Your task to perform on an android device: open app "Booking.com: Hotels and more" (install if not already installed), go to login, and select forgot password Image 0: 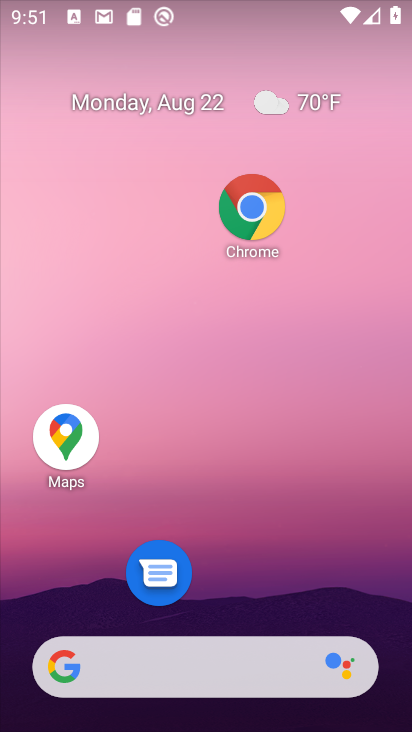
Step 0: drag from (243, 606) to (303, 269)
Your task to perform on an android device: open app "Booking.com: Hotels and more" (install if not already installed), go to login, and select forgot password Image 1: 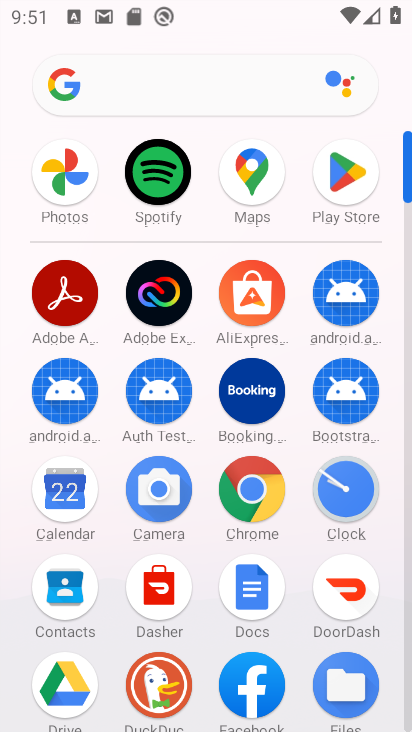
Step 1: click (349, 189)
Your task to perform on an android device: open app "Booking.com: Hotels and more" (install if not already installed), go to login, and select forgot password Image 2: 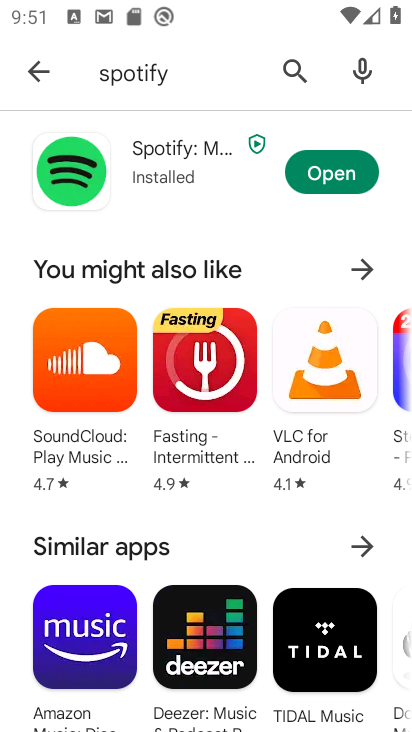
Step 2: click (189, 83)
Your task to perform on an android device: open app "Booking.com: Hotels and more" (install if not already installed), go to login, and select forgot password Image 3: 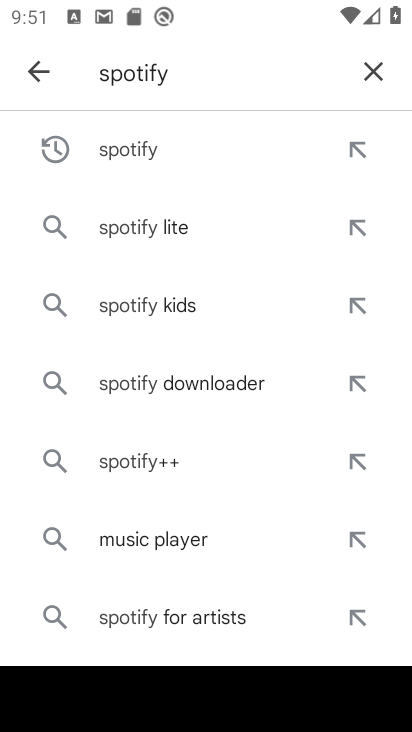
Step 3: click (383, 66)
Your task to perform on an android device: open app "Booking.com: Hotels and more" (install if not already installed), go to login, and select forgot password Image 4: 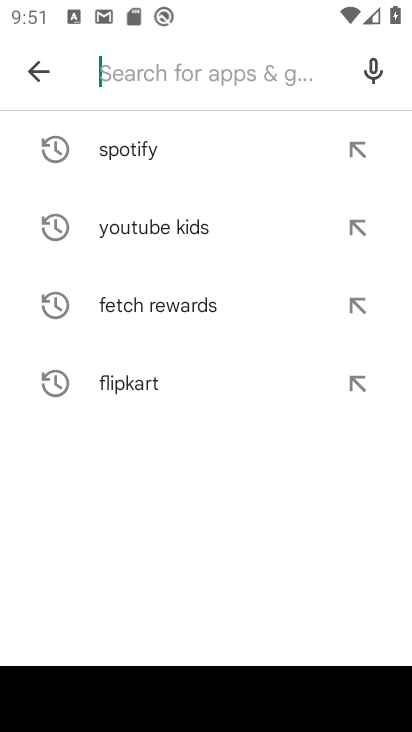
Step 4: type "Booking.com"
Your task to perform on an android device: open app "Booking.com: Hotels and more" (install if not already installed), go to login, and select forgot password Image 5: 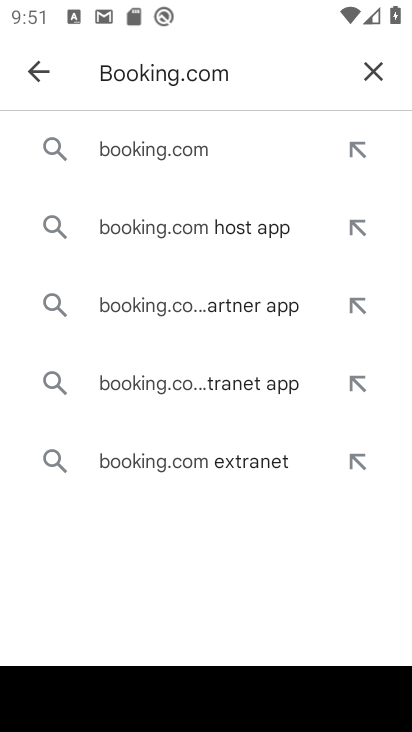
Step 5: click (207, 148)
Your task to perform on an android device: open app "Booking.com: Hotels and more" (install if not already installed), go to login, and select forgot password Image 6: 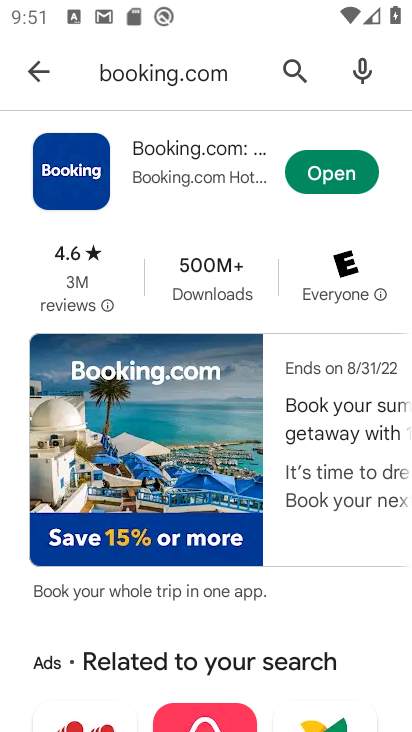
Step 6: click (350, 173)
Your task to perform on an android device: open app "Booking.com: Hotels and more" (install if not already installed), go to login, and select forgot password Image 7: 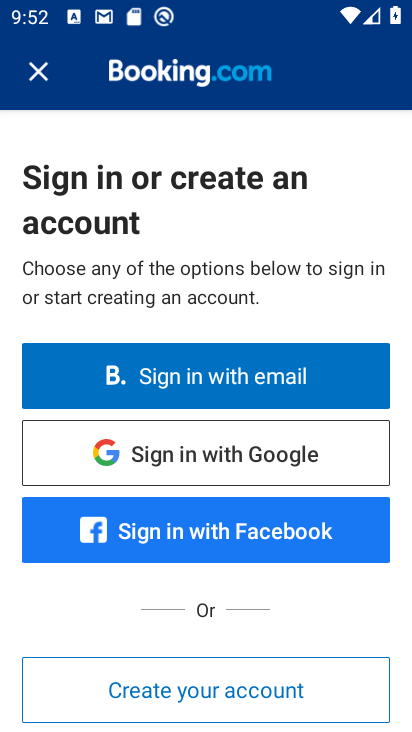
Step 7: drag from (255, 617) to (298, 258)
Your task to perform on an android device: open app "Booking.com: Hotels and more" (install if not already installed), go to login, and select forgot password Image 8: 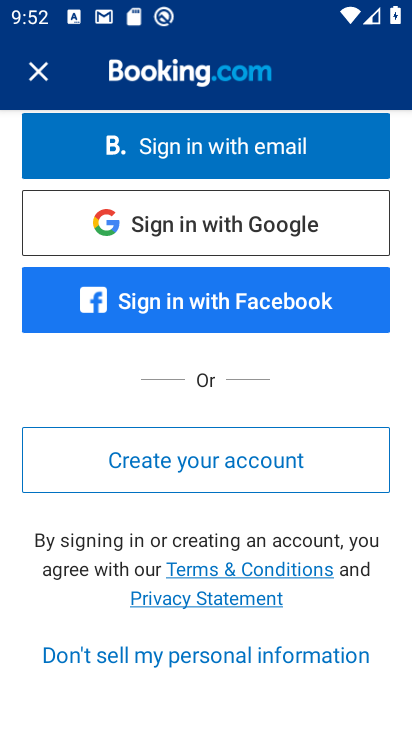
Step 8: drag from (237, 617) to (243, 419)
Your task to perform on an android device: open app "Booking.com: Hotels and more" (install if not already installed), go to login, and select forgot password Image 9: 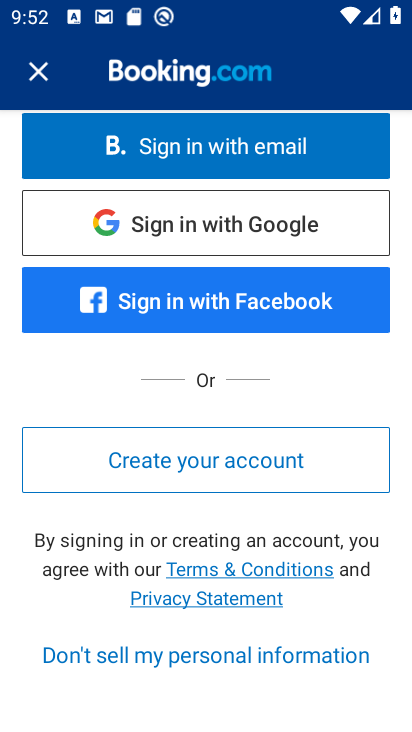
Step 9: drag from (217, 256) to (220, 531)
Your task to perform on an android device: open app "Booking.com: Hotels and more" (install if not already installed), go to login, and select forgot password Image 10: 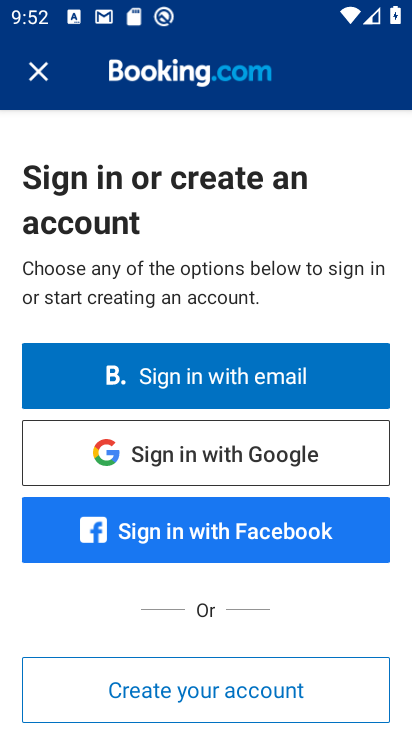
Step 10: drag from (218, 533) to (220, 402)
Your task to perform on an android device: open app "Booking.com: Hotels and more" (install if not already installed), go to login, and select forgot password Image 11: 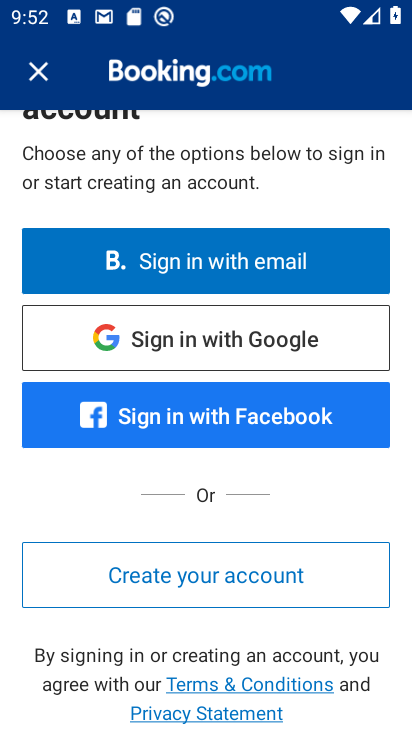
Step 11: click (260, 347)
Your task to perform on an android device: open app "Booking.com: Hotels and more" (install if not already installed), go to login, and select forgot password Image 12: 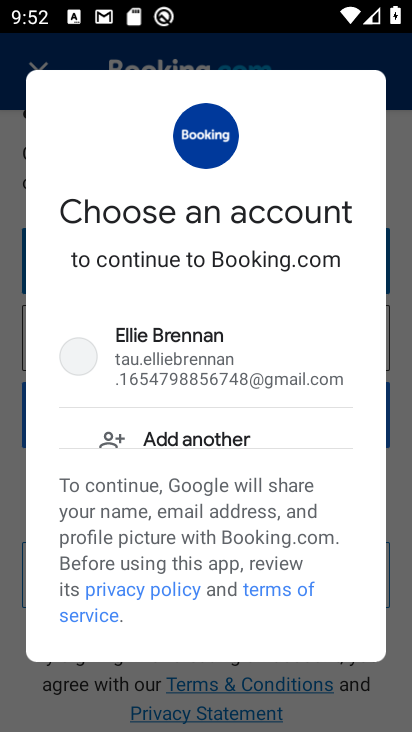
Step 12: press back button
Your task to perform on an android device: open app "Booking.com: Hotels and more" (install if not already installed), go to login, and select forgot password Image 13: 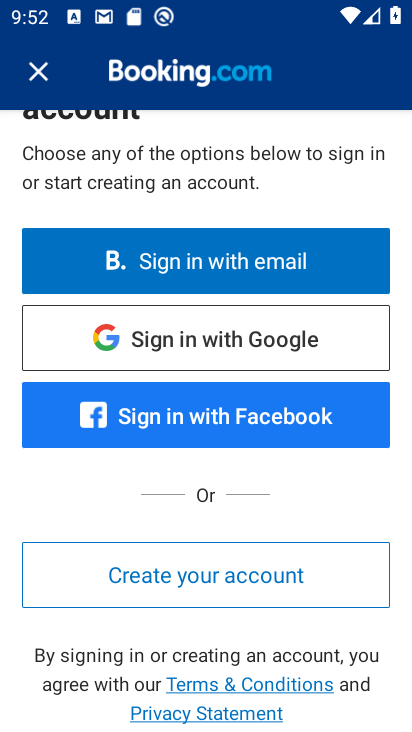
Step 13: click (271, 261)
Your task to perform on an android device: open app "Booking.com: Hotels and more" (install if not already installed), go to login, and select forgot password Image 14: 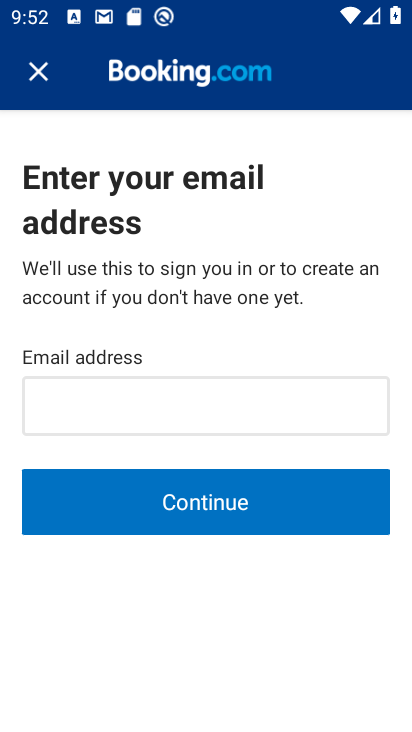
Step 14: task complete